Your task to perform on an android device: turn off smart reply in the gmail app Image 0: 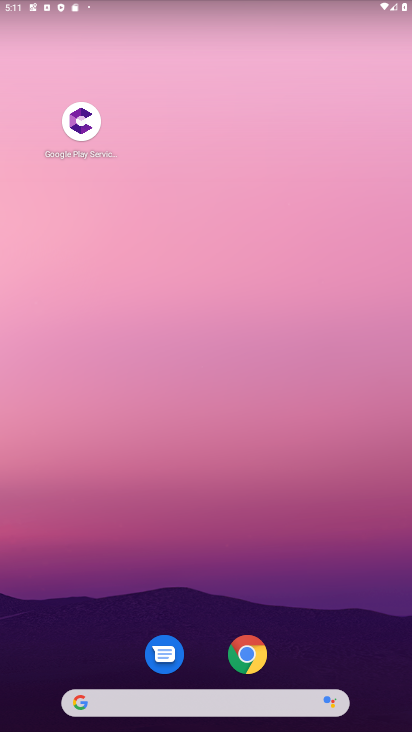
Step 0: drag from (204, 685) to (251, 132)
Your task to perform on an android device: turn off smart reply in the gmail app Image 1: 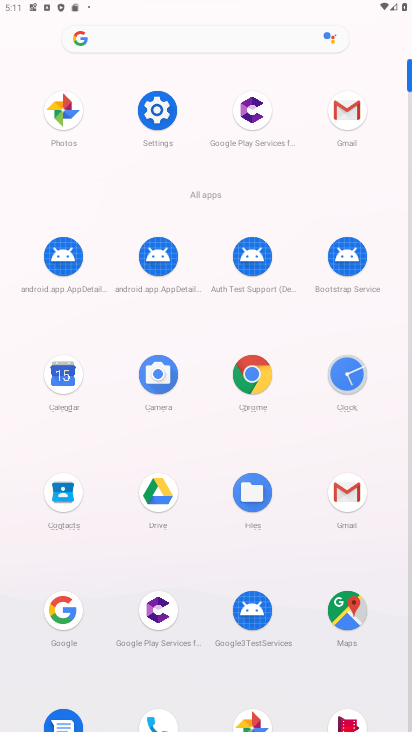
Step 1: click (355, 119)
Your task to perform on an android device: turn off smart reply in the gmail app Image 2: 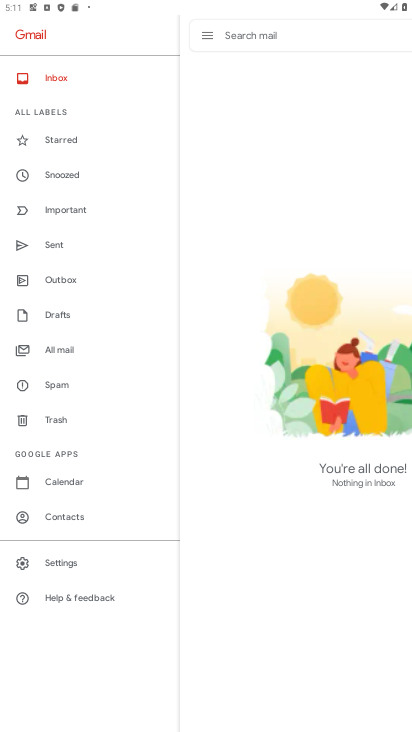
Step 2: click (41, 566)
Your task to perform on an android device: turn off smart reply in the gmail app Image 3: 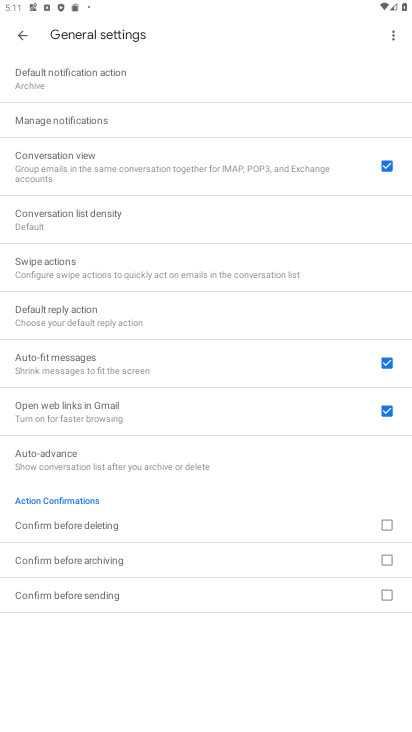
Step 3: click (28, 51)
Your task to perform on an android device: turn off smart reply in the gmail app Image 4: 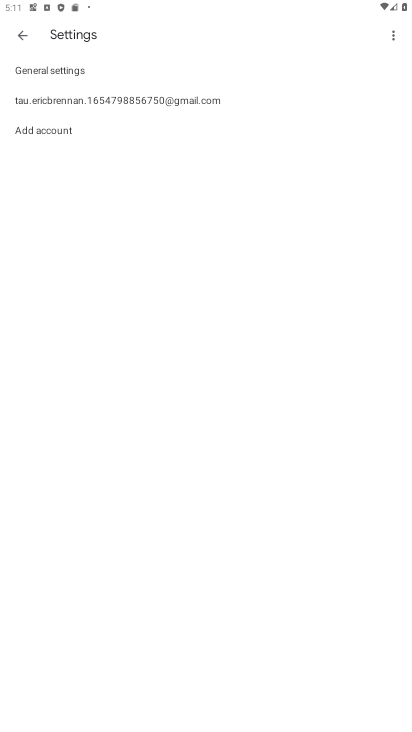
Step 4: click (178, 107)
Your task to perform on an android device: turn off smart reply in the gmail app Image 5: 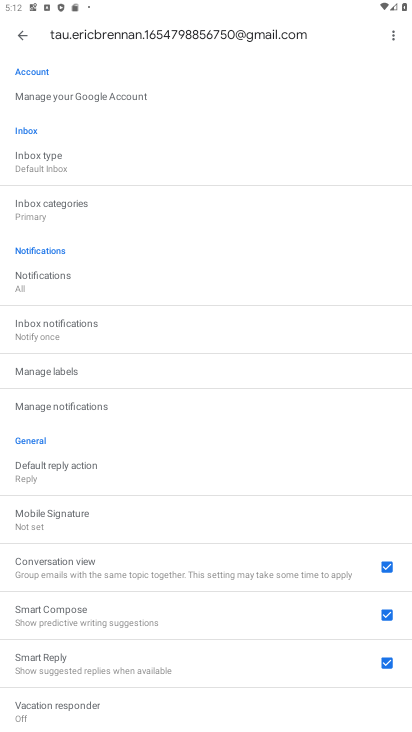
Step 5: click (390, 666)
Your task to perform on an android device: turn off smart reply in the gmail app Image 6: 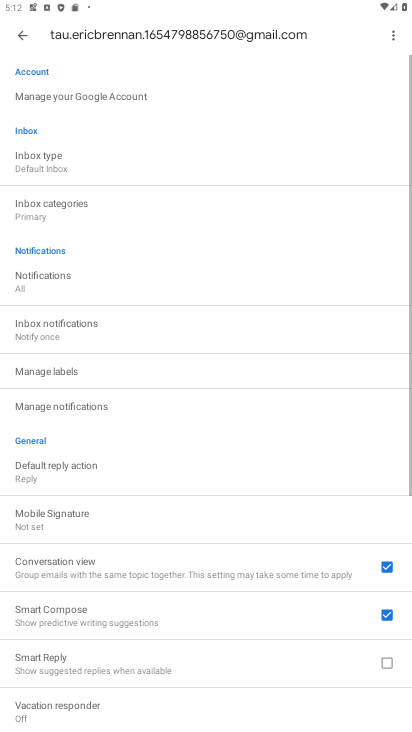
Step 6: task complete